Your task to perform on an android device: When is my next meeting? Image 0: 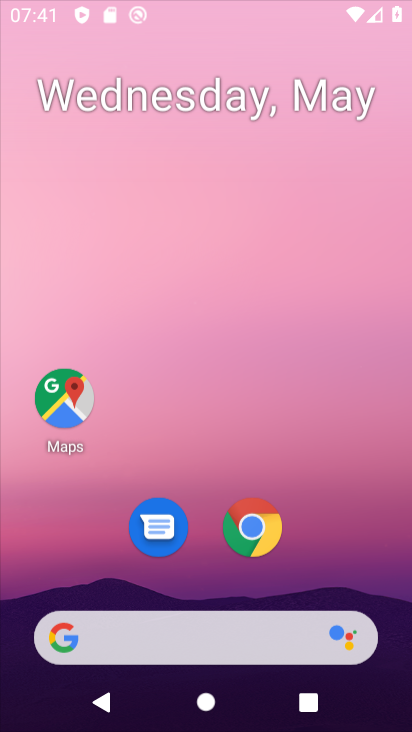
Step 0: press home button
Your task to perform on an android device: When is my next meeting? Image 1: 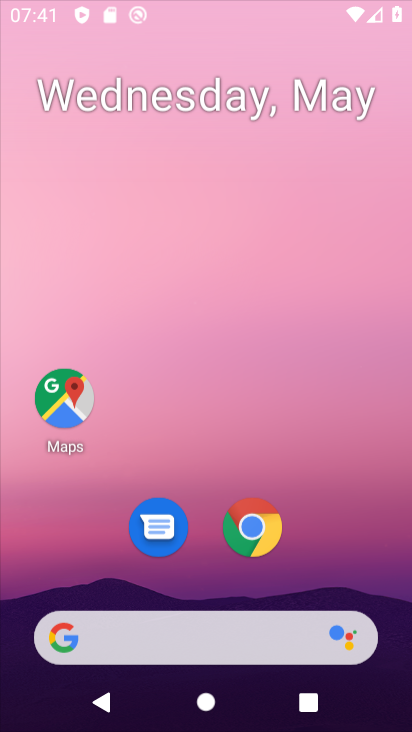
Step 1: click (317, 426)
Your task to perform on an android device: When is my next meeting? Image 2: 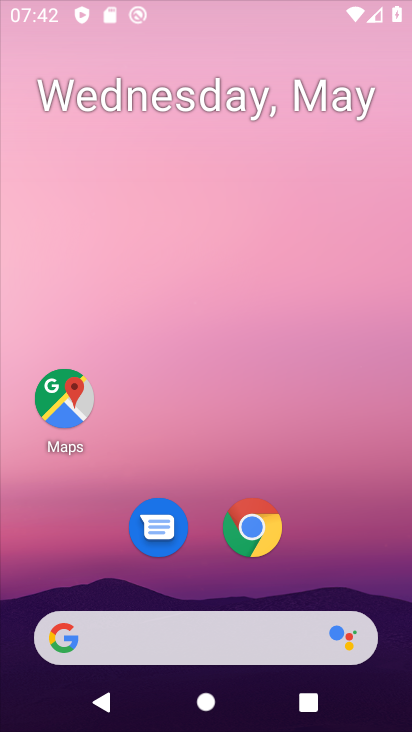
Step 2: click (238, 654)
Your task to perform on an android device: When is my next meeting? Image 3: 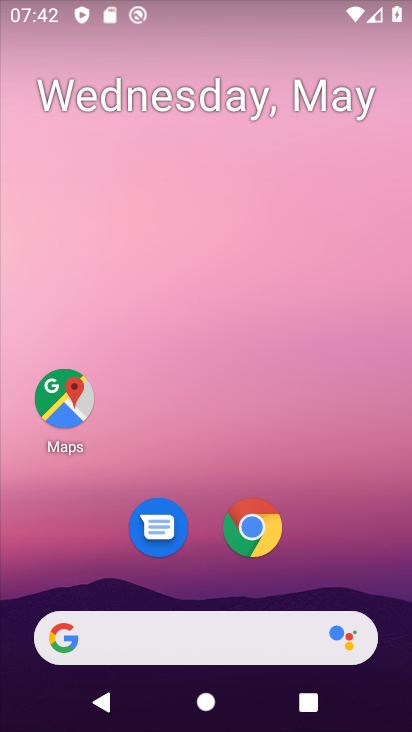
Step 3: drag from (187, 3) to (183, 494)
Your task to perform on an android device: When is my next meeting? Image 4: 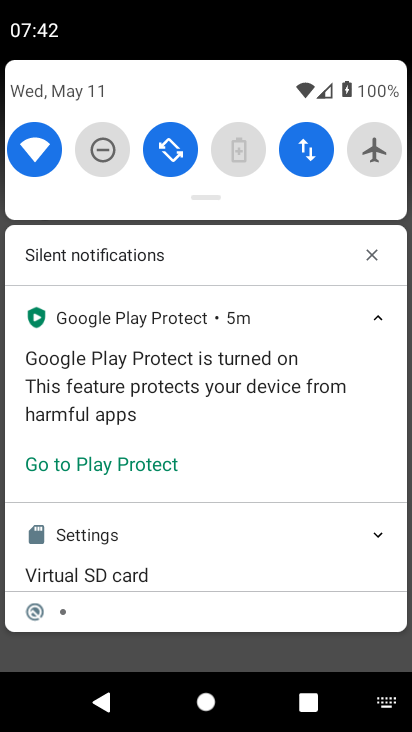
Step 4: press home button
Your task to perform on an android device: When is my next meeting? Image 5: 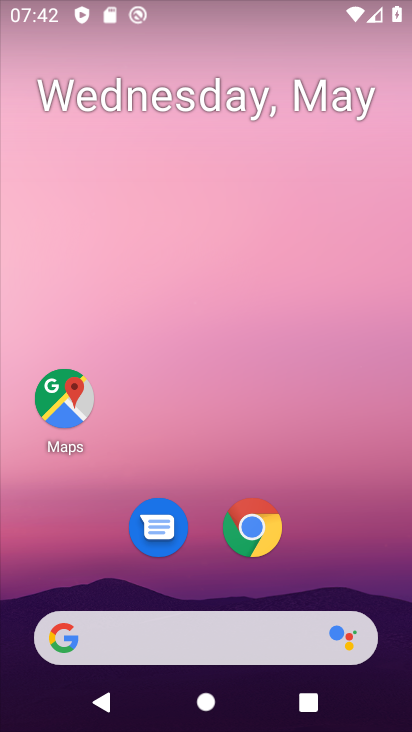
Step 5: press home button
Your task to perform on an android device: When is my next meeting? Image 6: 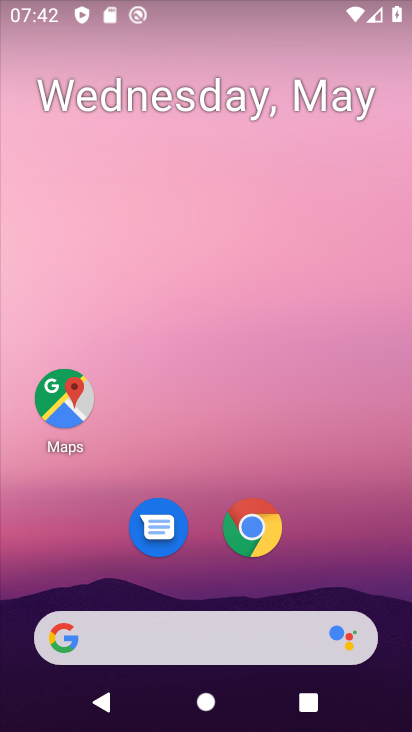
Step 6: press back button
Your task to perform on an android device: When is my next meeting? Image 7: 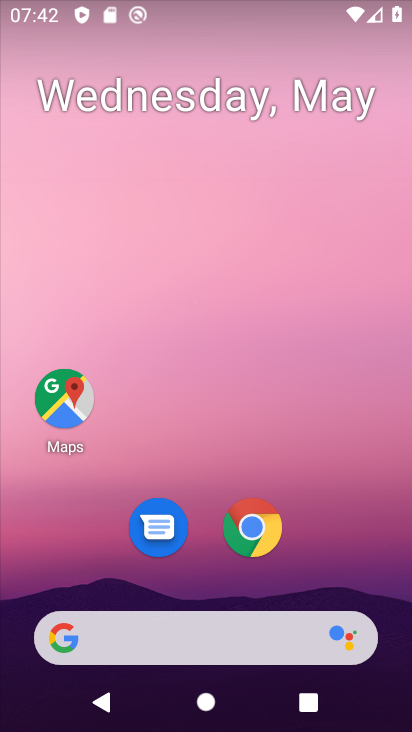
Step 7: press home button
Your task to perform on an android device: When is my next meeting? Image 8: 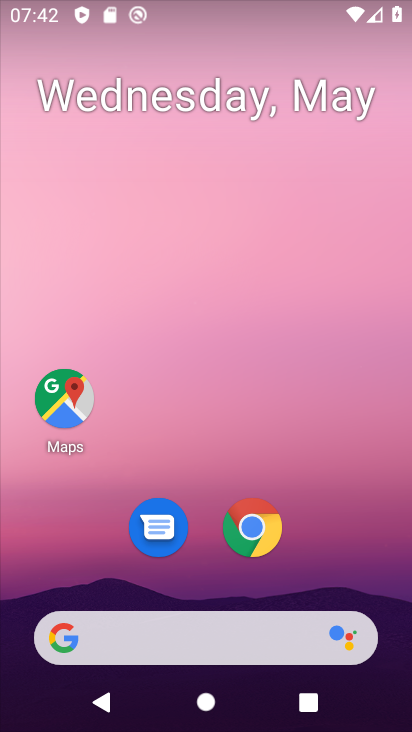
Step 8: drag from (363, 543) to (328, 147)
Your task to perform on an android device: When is my next meeting? Image 9: 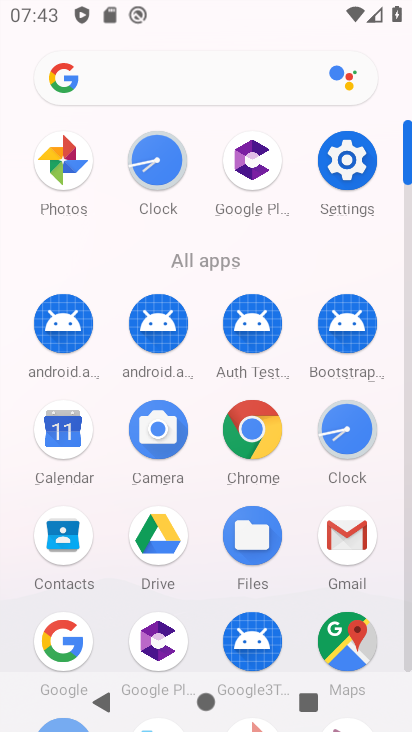
Step 9: click (54, 431)
Your task to perform on an android device: When is my next meeting? Image 10: 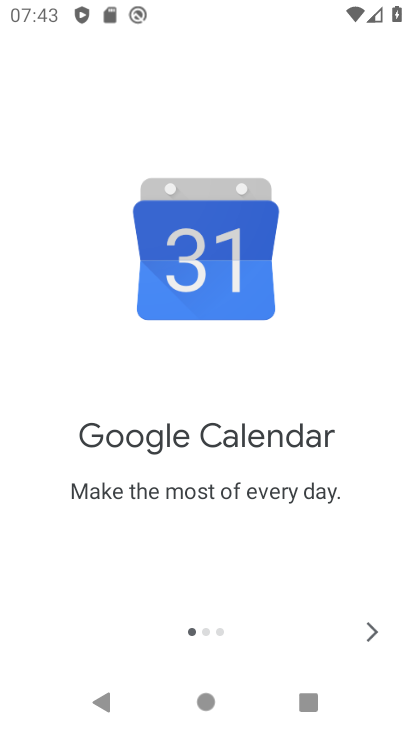
Step 10: click (386, 638)
Your task to perform on an android device: When is my next meeting? Image 11: 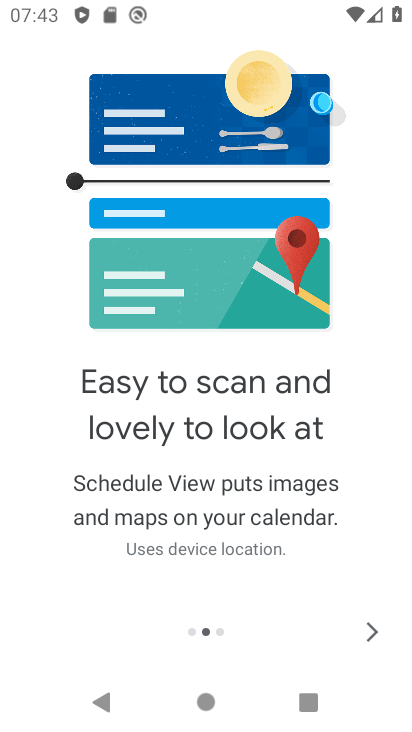
Step 11: click (386, 638)
Your task to perform on an android device: When is my next meeting? Image 12: 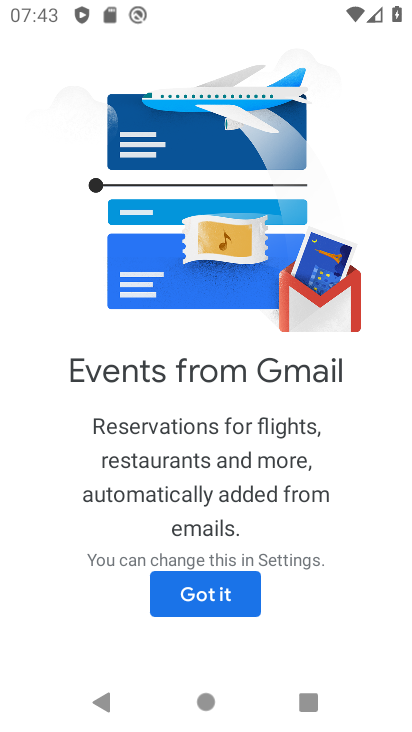
Step 12: click (219, 608)
Your task to perform on an android device: When is my next meeting? Image 13: 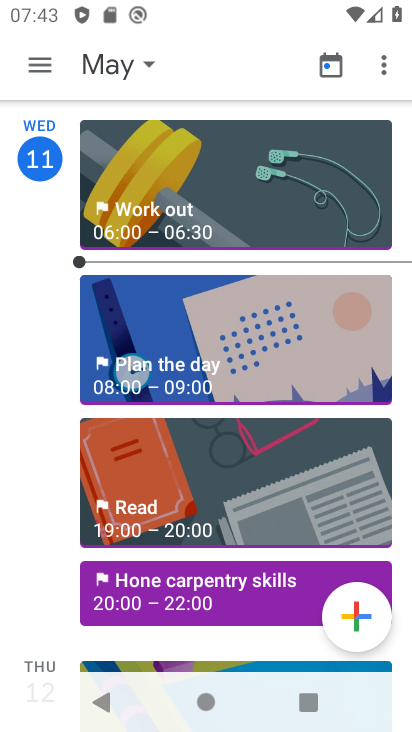
Step 13: click (137, 76)
Your task to perform on an android device: When is my next meeting? Image 14: 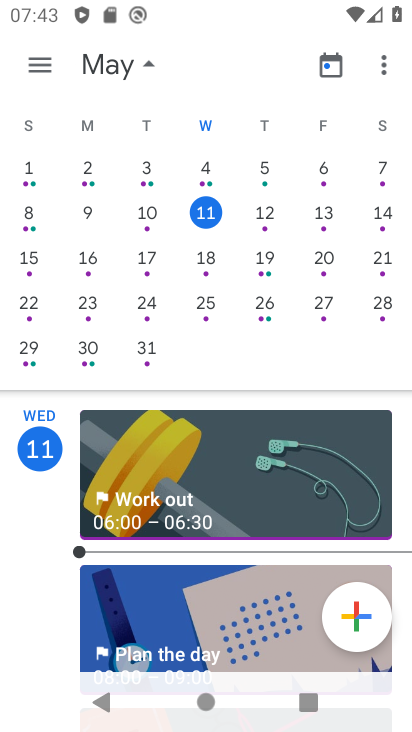
Step 14: click (137, 76)
Your task to perform on an android device: When is my next meeting? Image 15: 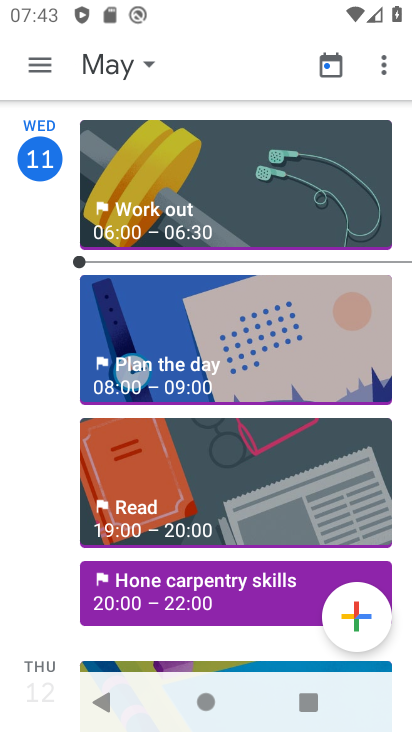
Step 15: task complete